Your task to perform on an android device: Go to privacy settings Image 0: 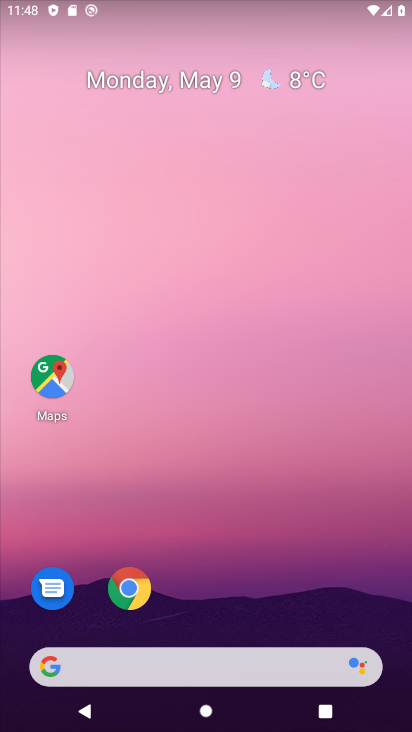
Step 0: click (129, 598)
Your task to perform on an android device: Go to privacy settings Image 1: 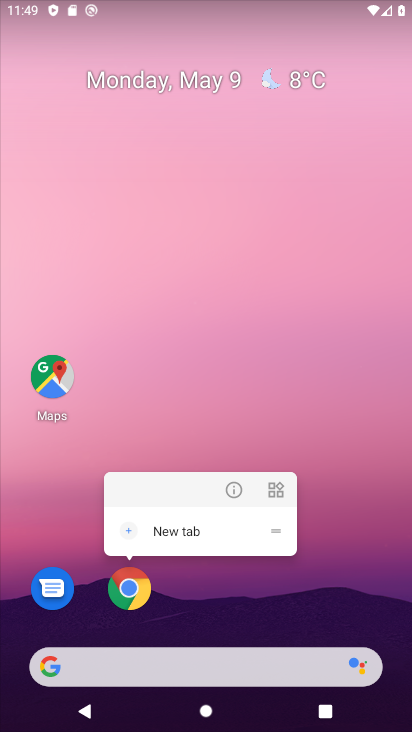
Step 1: click (129, 598)
Your task to perform on an android device: Go to privacy settings Image 2: 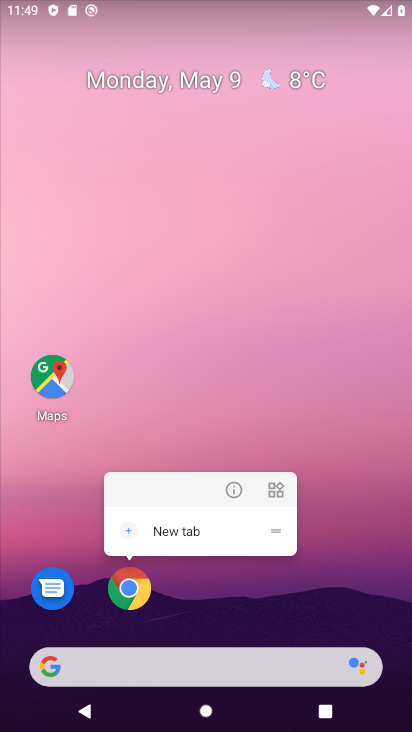
Step 2: click (146, 592)
Your task to perform on an android device: Go to privacy settings Image 3: 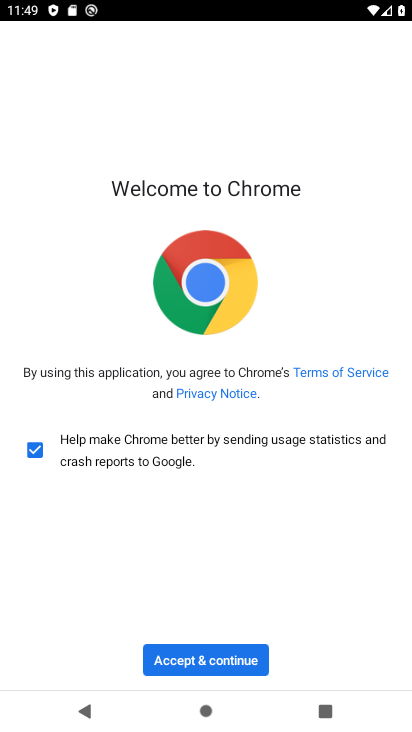
Step 3: click (238, 663)
Your task to perform on an android device: Go to privacy settings Image 4: 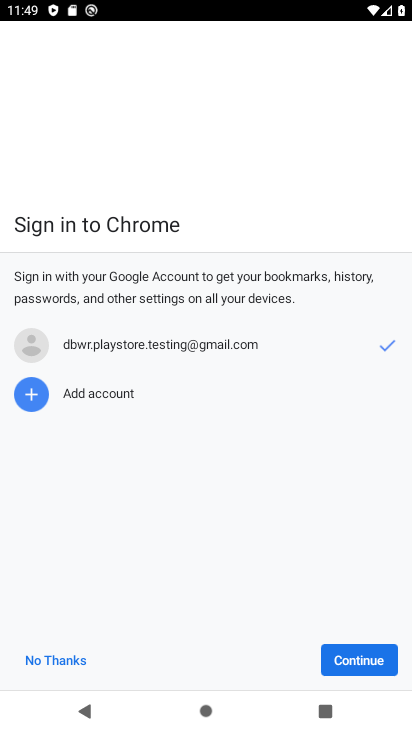
Step 4: click (378, 649)
Your task to perform on an android device: Go to privacy settings Image 5: 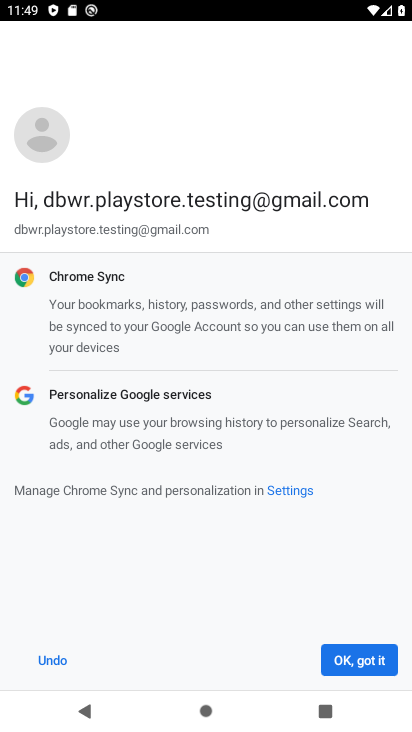
Step 5: click (375, 661)
Your task to perform on an android device: Go to privacy settings Image 6: 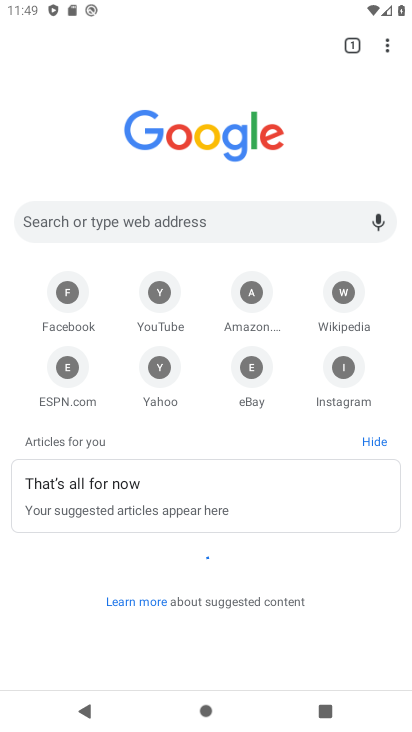
Step 6: drag from (395, 42) to (288, 384)
Your task to perform on an android device: Go to privacy settings Image 7: 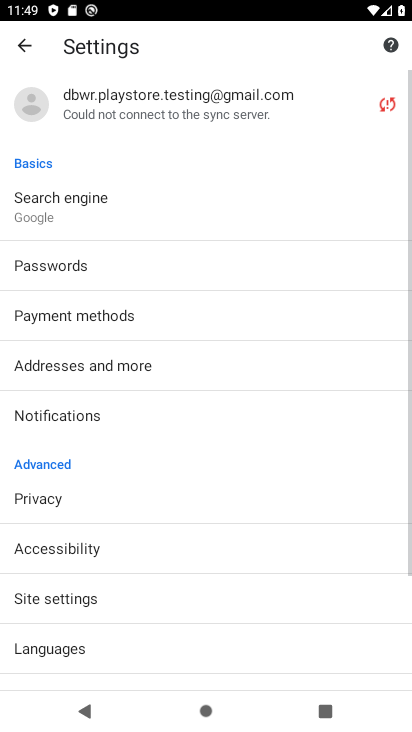
Step 7: click (122, 497)
Your task to perform on an android device: Go to privacy settings Image 8: 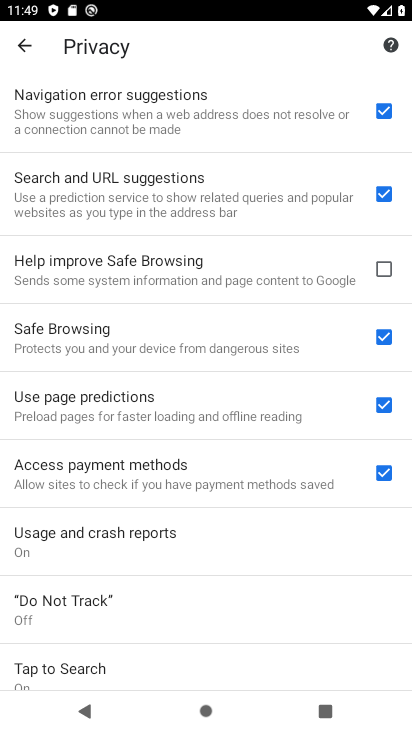
Step 8: task complete